Your task to perform on an android device: Open the web browser Image 0: 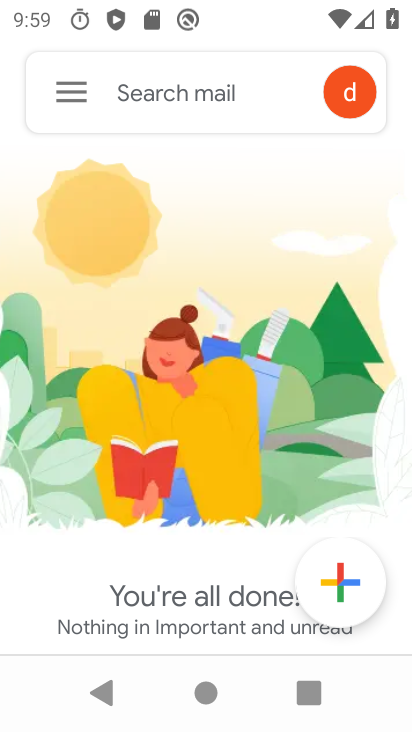
Step 0: press back button
Your task to perform on an android device: Open the web browser Image 1: 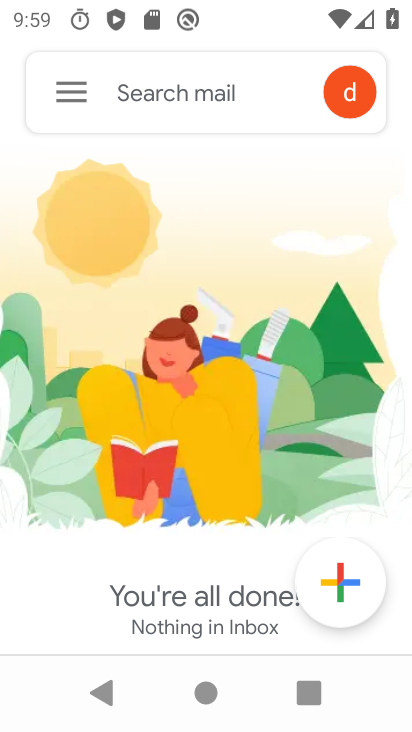
Step 1: press home button
Your task to perform on an android device: Open the web browser Image 2: 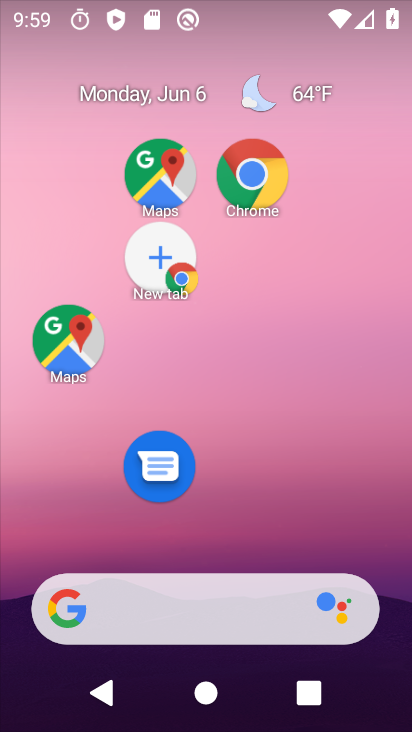
Step 2: drag from (253, 541) to (211, 119)
Your task to perform on an android device: Open the web browser Image 3: 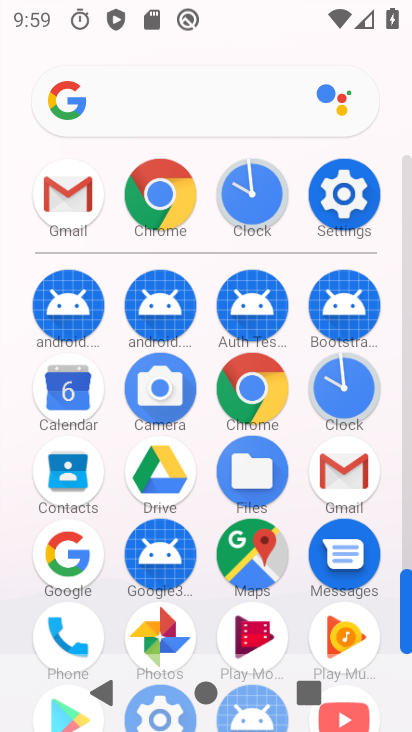
Step 3: click (150, 200)
Your task to perform on an android device: Open the web browser Image 4: 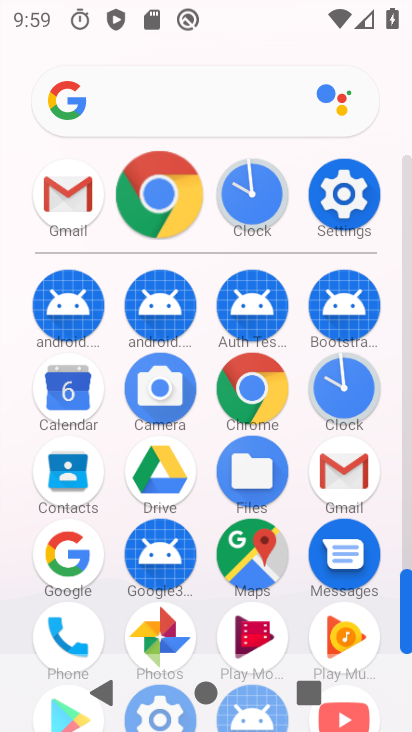
Step 4: click (151, 199)
Your task to perform on an android device: Open the web browser Image 5: 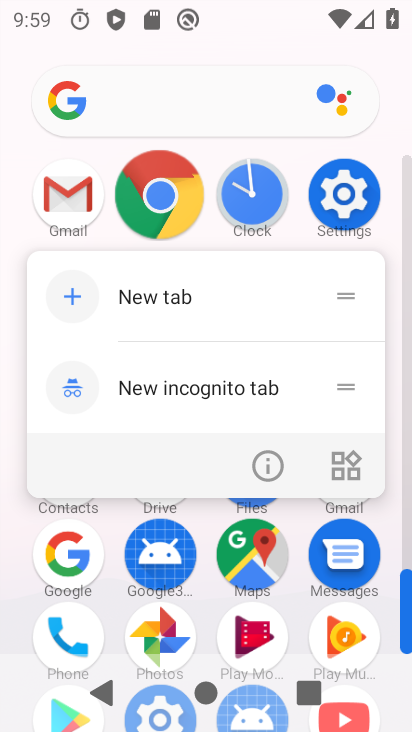
Step 5: click (152, 198)
Your task to perform on an android device: Open the web browser Image 6: 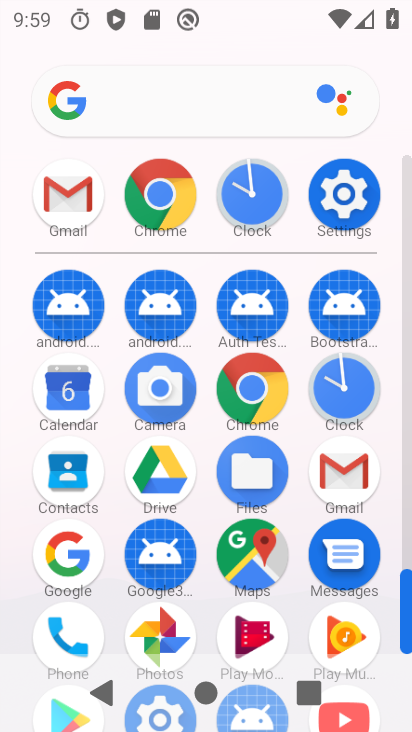
Step 6: click (152, 198)
Your task to perform on an android device: Open the web browser Image 7: 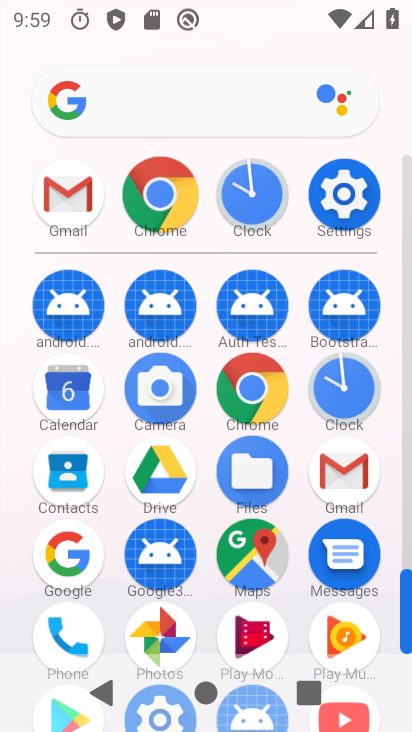
Step 7: click (152, 198)
Your task to perform on an android device: Open the web browser Image 8: 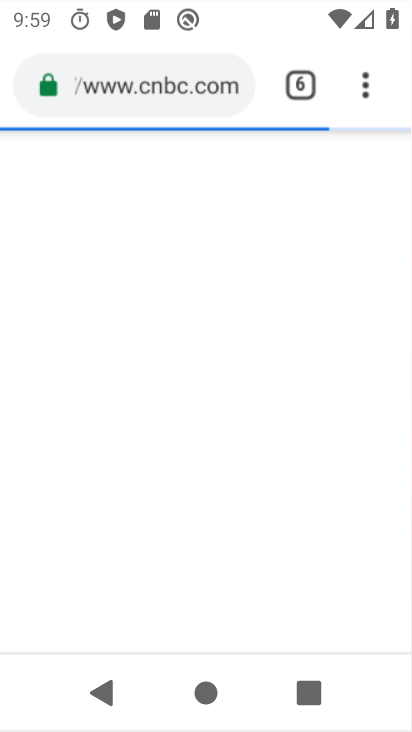
Step 8: click (152, 198)
Your task to perform on an android device: Open the web browser Image 9: 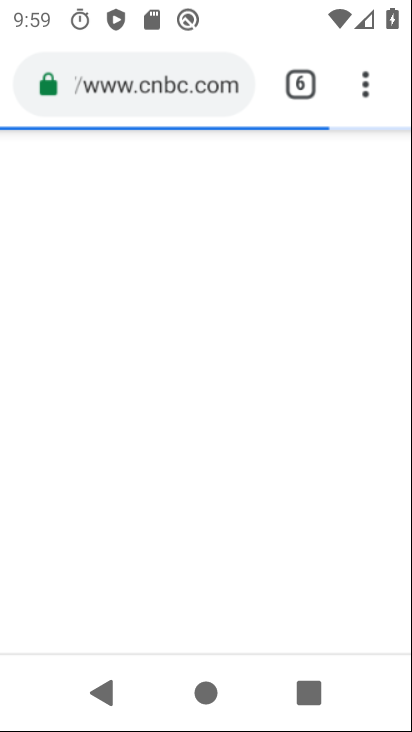
Step 9: click (153, 197)
Your task to perform on an android device: Open the web browser Image 10: 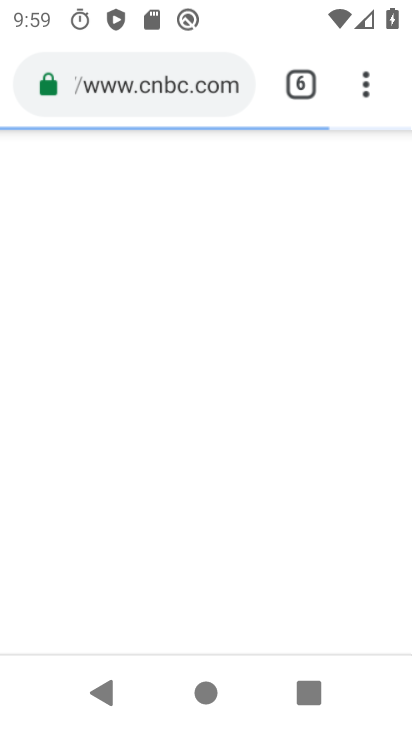
Step 10: click (153, 197)
Your task to perform on an android device: Open the web browser Image 11: 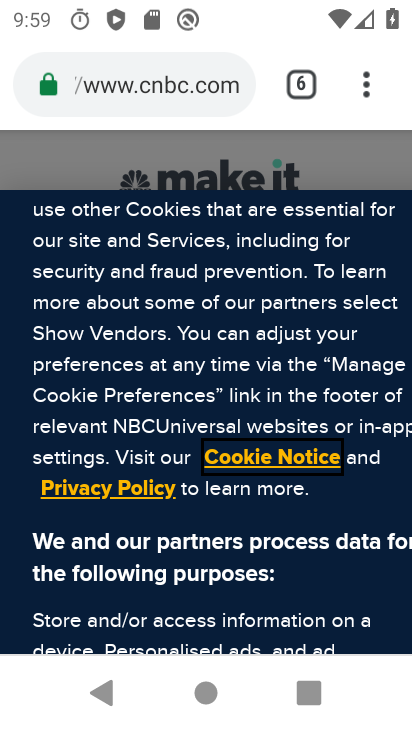
Step 11: drag from (372, 89) to (62, 171)
Your task to perform on an android device: Open the web browser Image 12: 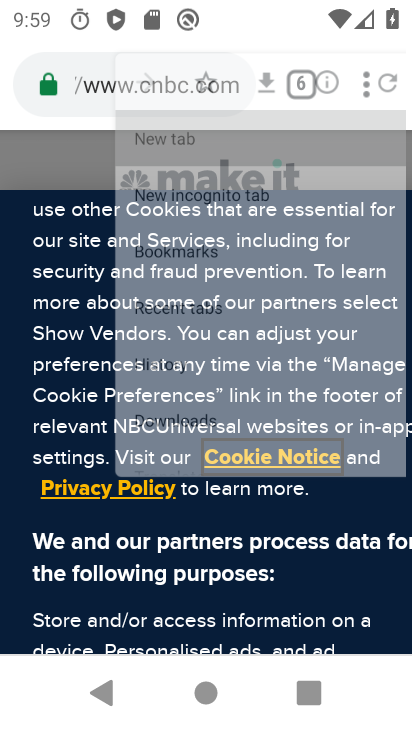
Step 12: click (64, 171)
Your task to perform on an android device: Open the web browser Image 13: 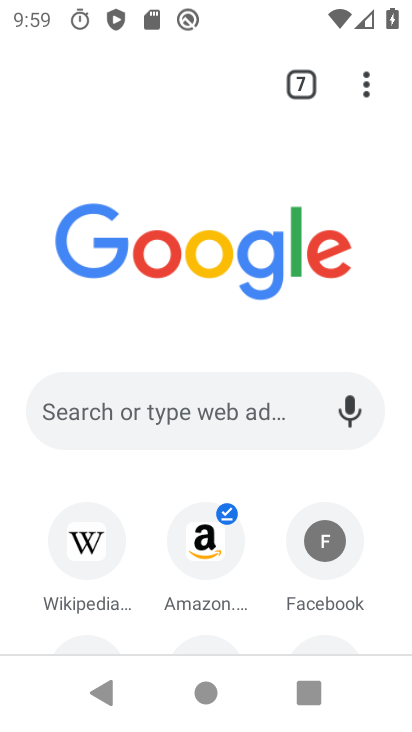
Step 13: task complete